Your task to perform on an android device: Search for a dining table on crateandbarrel.com Image 0: 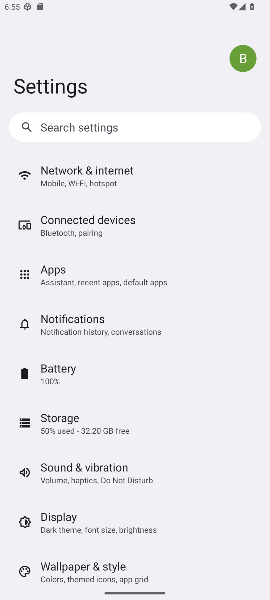
Step 0: press home button
Your task to perform on an android device: Search for a dining table on crateandbarrel.com Image 1: 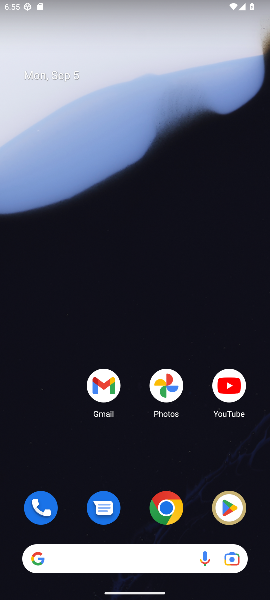
Step 1: click (164, 517)
Your task to perform on an android device: Search for a dining table on crateandbarrel.com Image 2: 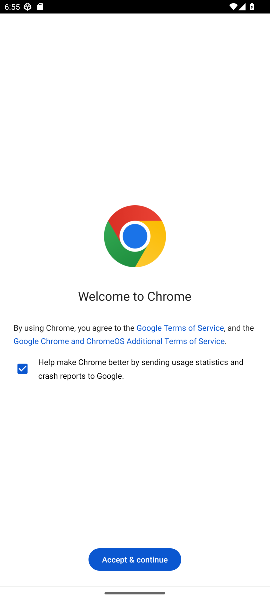
Step 2: click (143, 569)
Your task to perform on an android device: Search for a dining table on crateandbarrel.com Image 3: 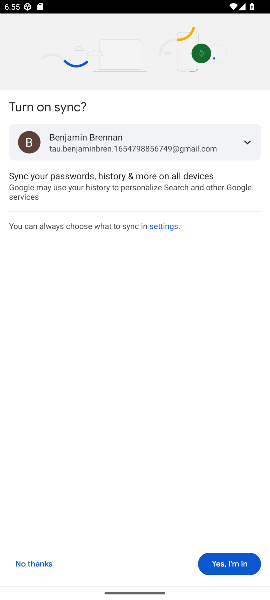
Step 3: click (37, 566)
Your task to perform on an android device: Search for a dining table on crateandbarrel.com Image 4: 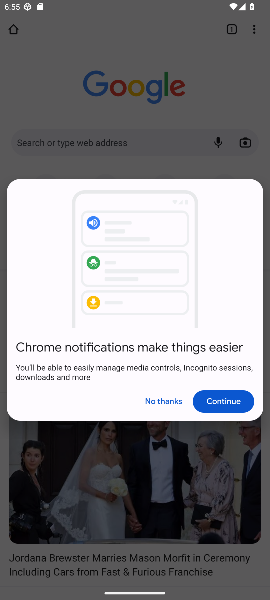
Step 4: click (165, 405)
Your task to perform on an android device: Search for a dining table on crateandbarrel.com Image 5: 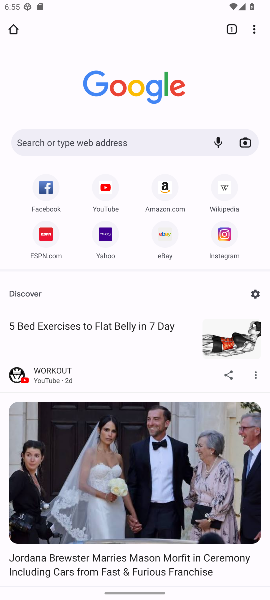
Step 5: click (58, 145)
Your task to perform on an android device: Search for a dining table on crateandbarrel.com Image 6: 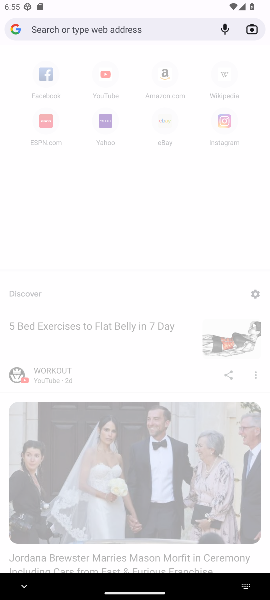
Step 6: type "crateandbarrel.com"
Your task to perform on an android device: Search for a dining table on crateandbarrel.com Image 7: 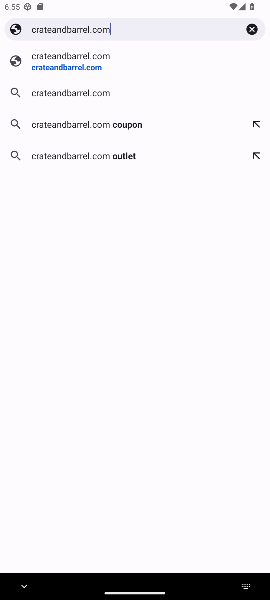
Step 7: click (73, 70)
Your task to perform on an android device: Search for a dining table on crateandbarrel.com Image 8: 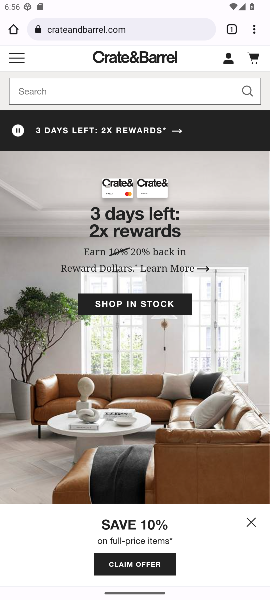
Step 8: click (65, 96)
Your task to perform on an android device: Search for a dining table on crateandbarrel.com Image 9: 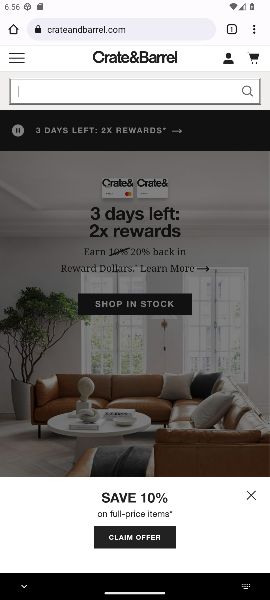
Step 9: type "dining table"
Your task to perform on an android device: Search for a dining table on crateandbarrel.com Image 10: 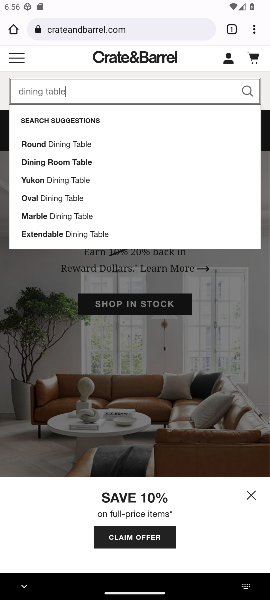
Step 10: click (248, 89)
Your task to perform on an android device: Search for a dining table on crateandbarrel.com Image 11: 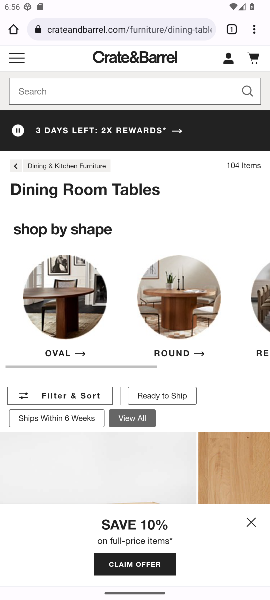
Step 11: task complete